Your task to perform on an android device: Play the last video I watched on Youtube Image 0: 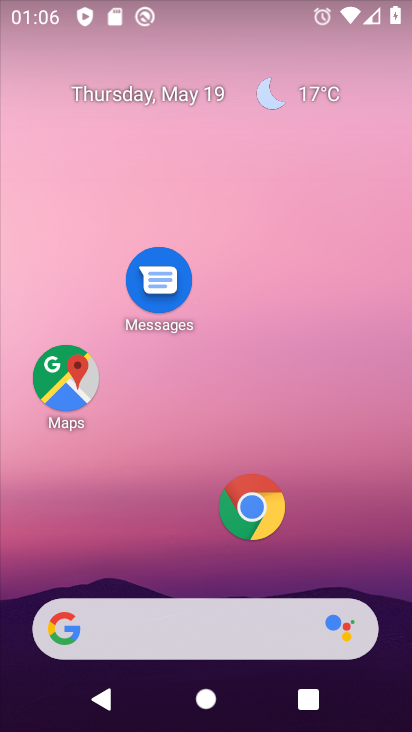
Step 0: drag from (191, 153) to (191, 105)
Your task to perform on an android device: Play the last video I watched on Youtube Image 1: 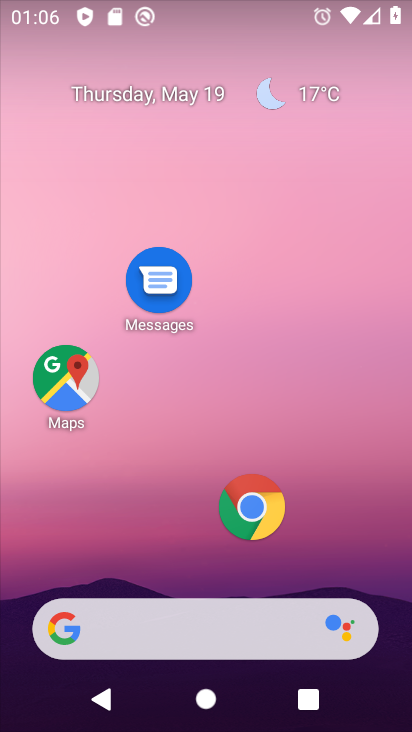
Step 1: drag from (189, 563) to (305, 53)
Your task to perform on an android device: Play the last video I watched on Youtube Image 2: 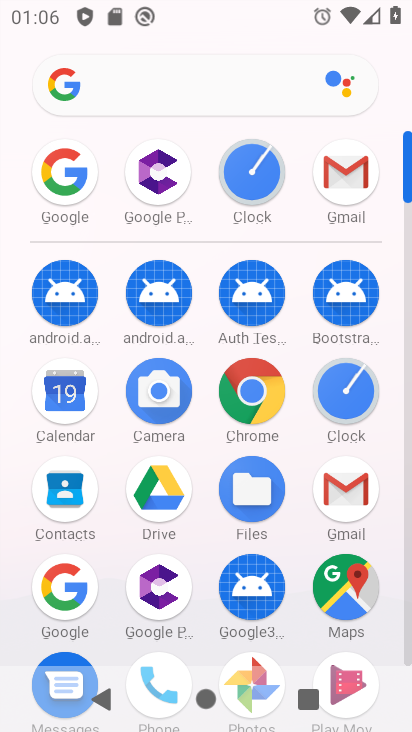
Step 2: drag from (277, 626) to (368, 356)
Your task to perform on an android device: Play the last video I watched on Youtube Image 3: 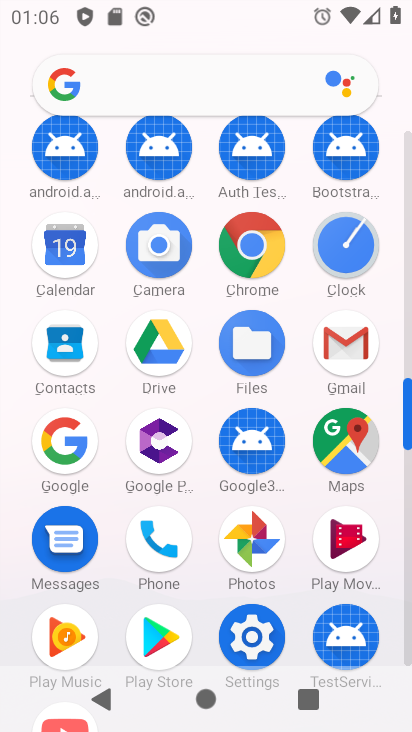
Step 3: drag from (101, 621) to (155, 398)
Your task to perform on an android device: Play the last video I watched on Youtube Image 4: 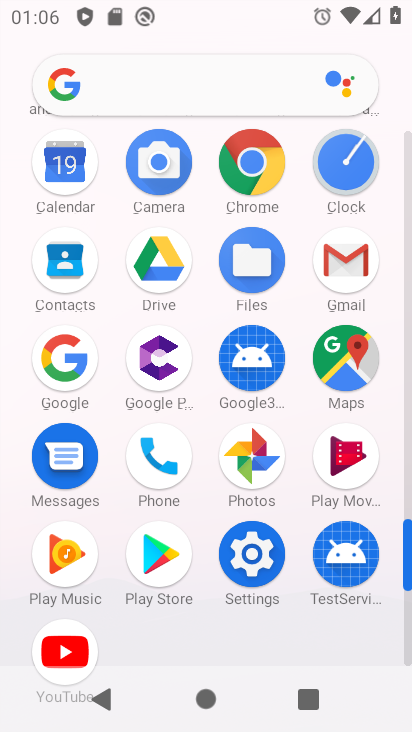
Step 4: click (61, 659)
Your task to perform on an android device: Play the last video I watched on Youtube Image 5: 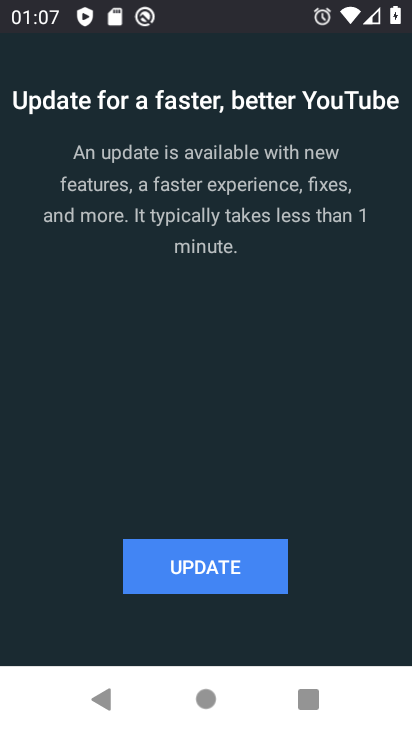
Step 5: click (208, 557)
Your task to perform on an android device: Play the last video I watched on Youtube Image 6: 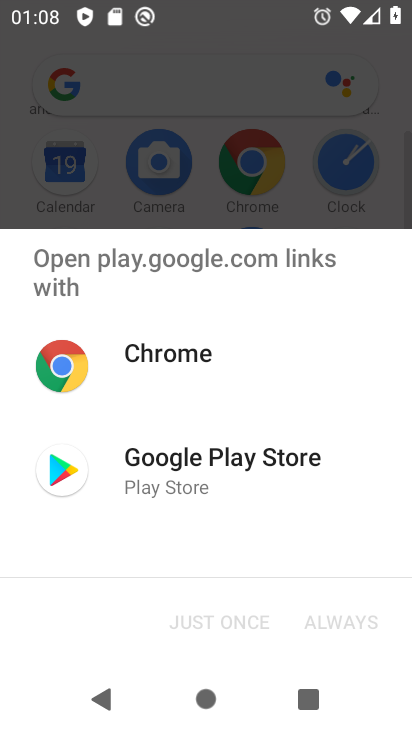
Step 6: click (196, 463)
Your task to perform on an android device: Play the last video I watched on Youtube Image 7: 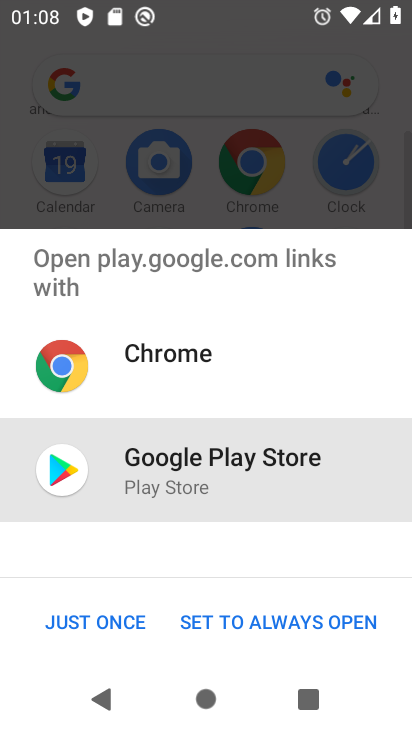
Step 7: click (338, 621)
Your task to perform on an android device: Play the last video I watched on Youtube Image 8: 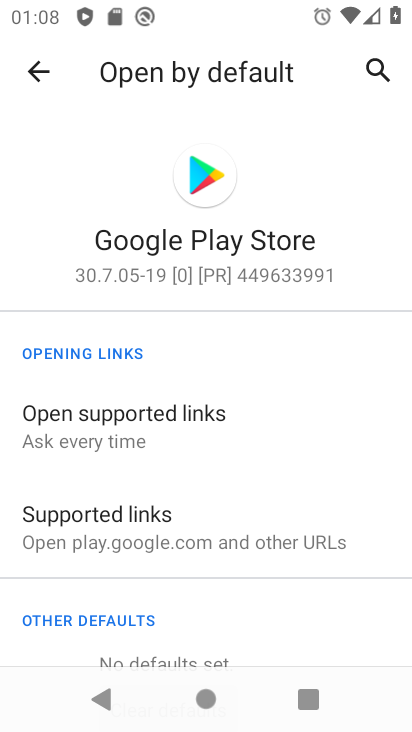
Step 8: click (223, 242)
Your task to perform on an android device: Play the last video I watched on Youtube Image 9: 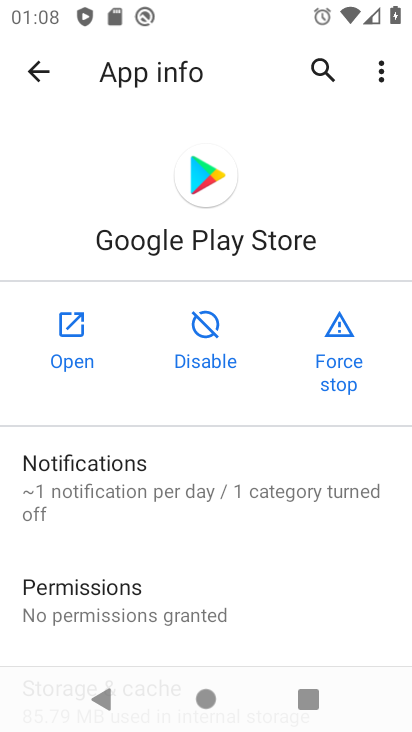
Step 9: click (64, 355)
Your task to perform on an android device: Play the last video I watched on Youtube Image 10: 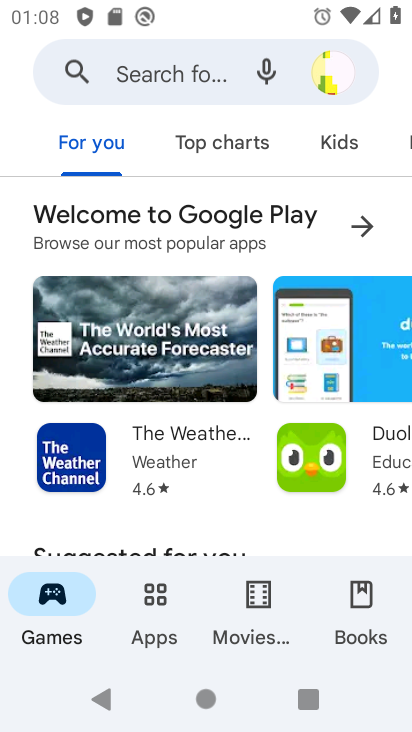
Step 10: click (183, 71)
Your task to perform on an android device: Play the last video I watched on Youtube Image 11: 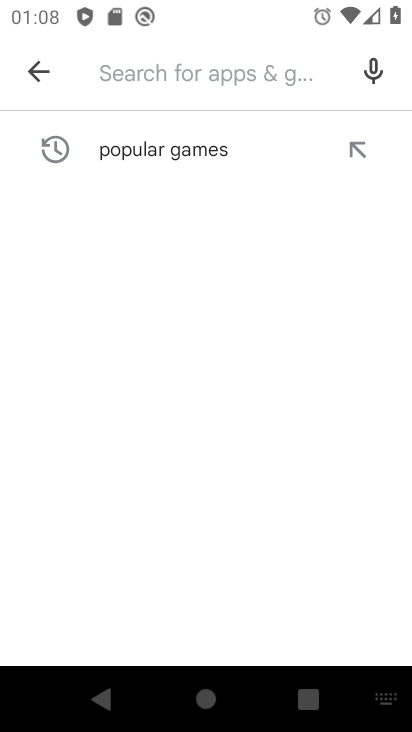
Step 11: type "youtube"
Your task to perform on an android device: Play the last video I watched on Youtube Image 12: 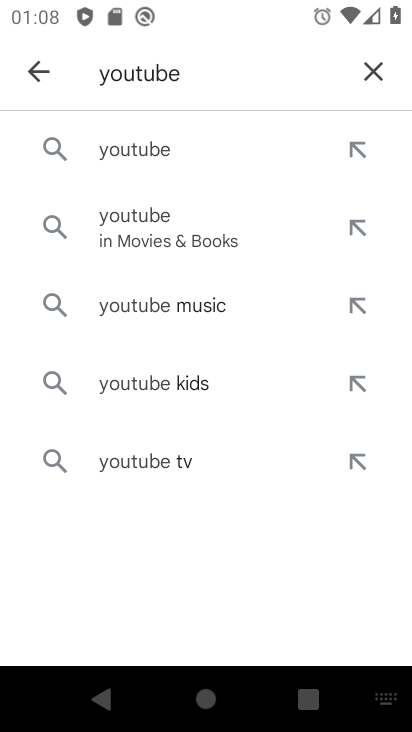
Step 12: click (149, 158)
Your task to perform on an android device: Play the last video I watched on Youtube Image 13: 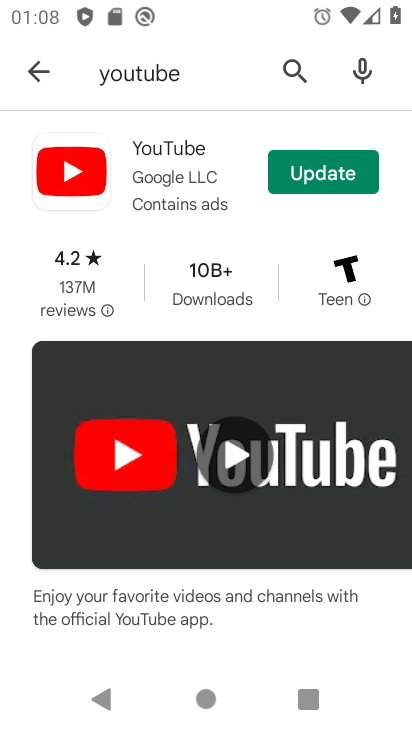
Step 13: click (314, 188)
Your task to perform on an android device: Play the last video I watched on Youtube Image 14: 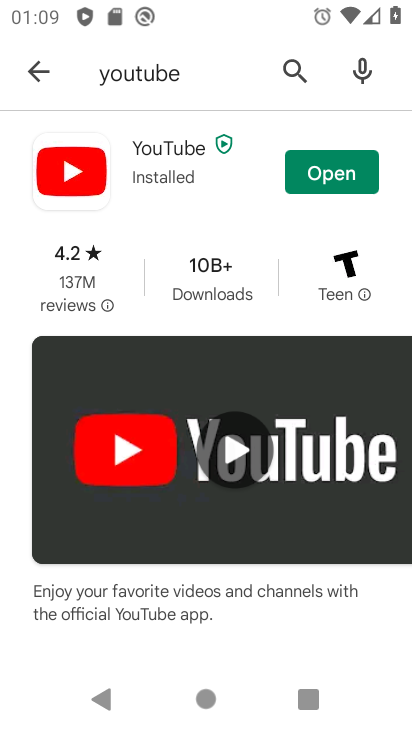
Step 14: click (322, 176)
Your task to perform on an android device: Play the last video I watched on Youtube Image 15: 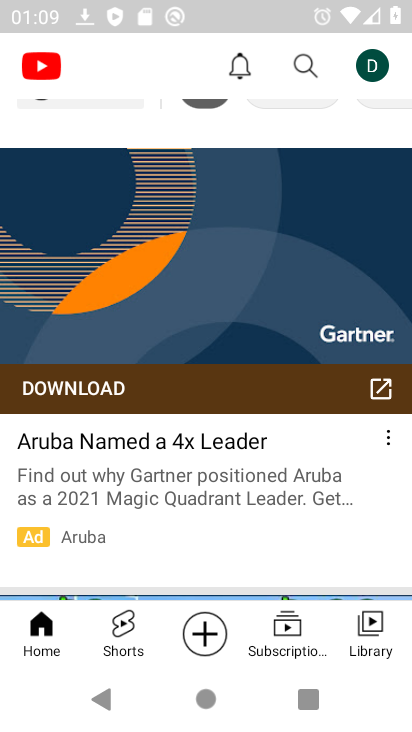
Step 15: click (358, 636)
Your task to perform on an android device: Play the last video I watched on Youtube Image 16: 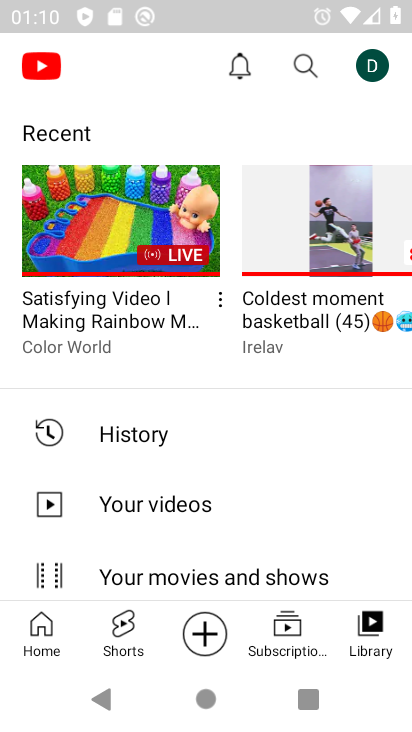
Step 16: task complete